Your task to perform on an android device: What's on my calendar tomorrow? Image 0: 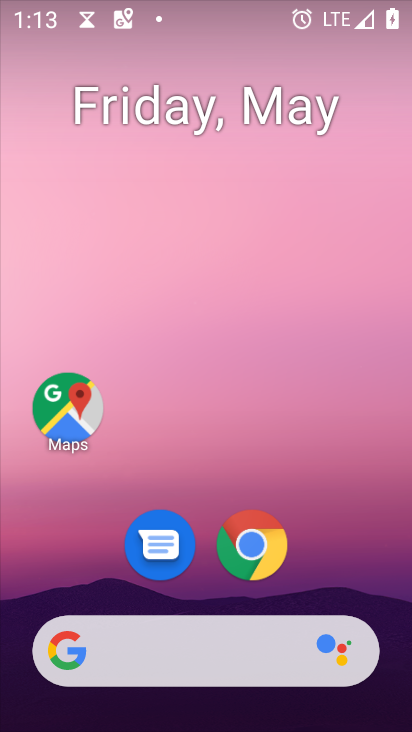
Step 0: click (157, 115)
Your task to perform on an android device: What's on my calendar tomorrow? Image 1: 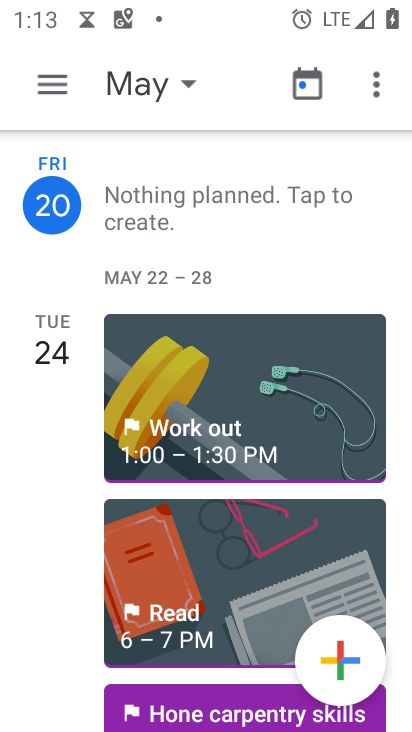
Step 1: click (58, 87)
Your task to perform on an android device: What's on my calendar tomorrow? Image 2: 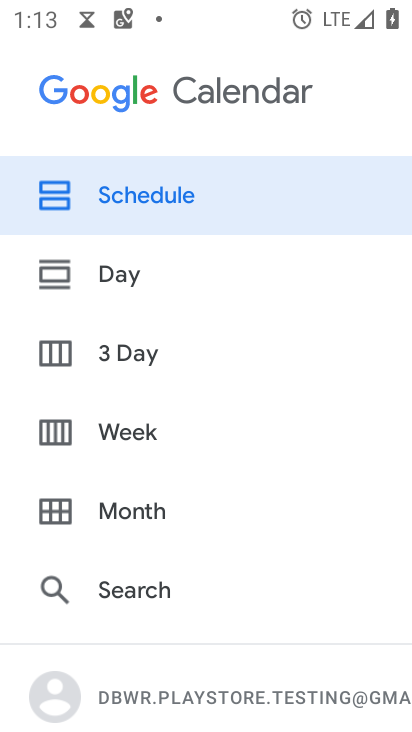
Step 2: click (120, 269)
Your task to perform on an android device: What's on my calendar tomorrow? Image 3: 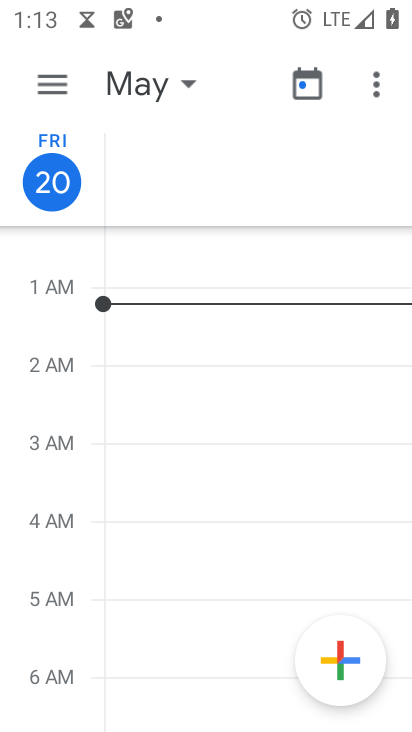
Step 3: click (168, 80)
Your task to perform on an android device: What's on my calendar tomorrow? Image 4: 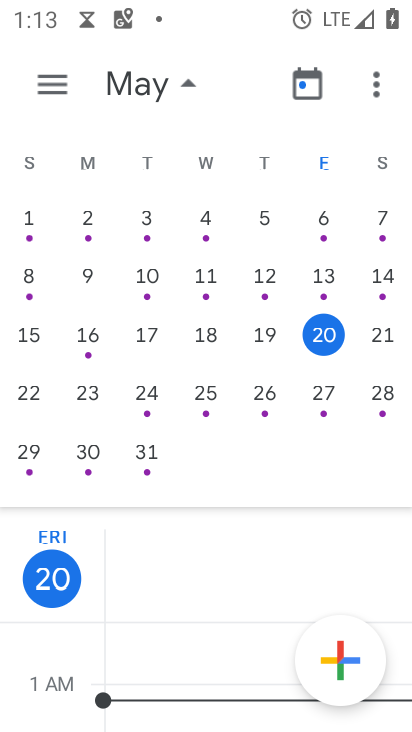
Step 4: click (380, 332)
Your task to perform on an android device: What's on my calendar tomorrow? Image 5: 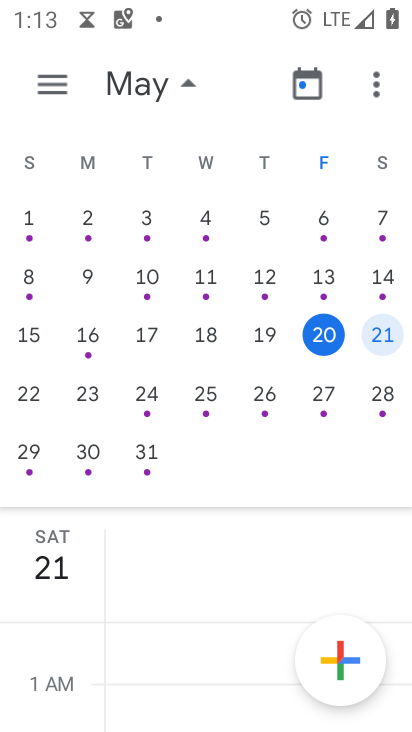
Step 5: click (239, 620)
Your task to perform on an android device: What's on my calendar tomorrow? Image 6: 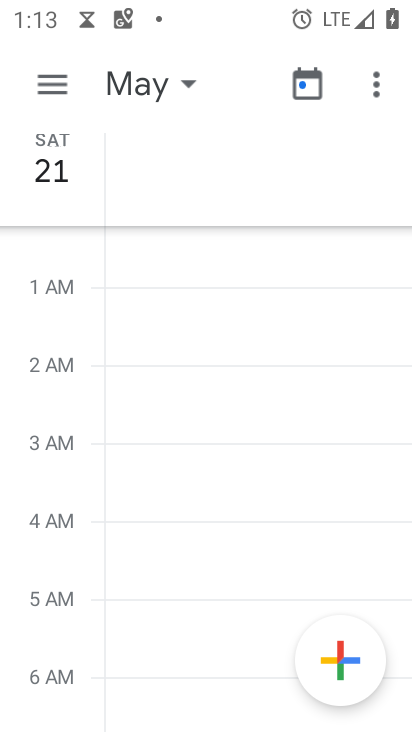
Step 6: task complete